Your task to perform on an android device: open wifi settings Image 0: 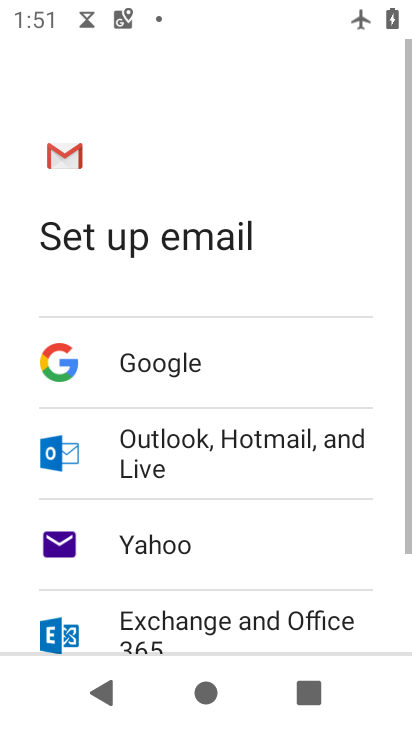
Step 0: press home button
Your task to perform on an android device: open wifi settings Image 1: 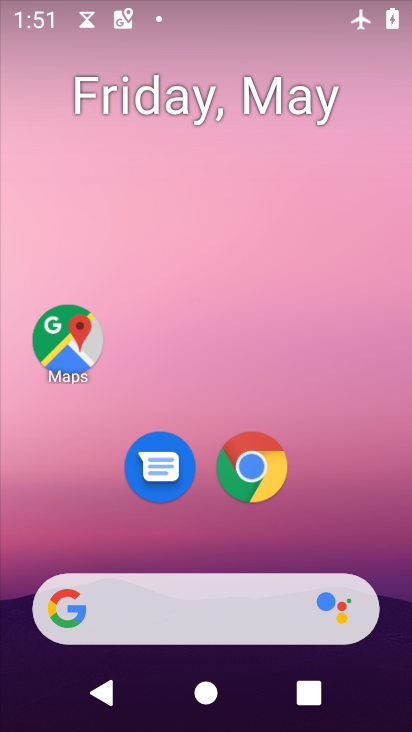
Step 1: drag from (321, 536) to (299, 101)
Your task to perform on an android device: open wifi settings Image 2: 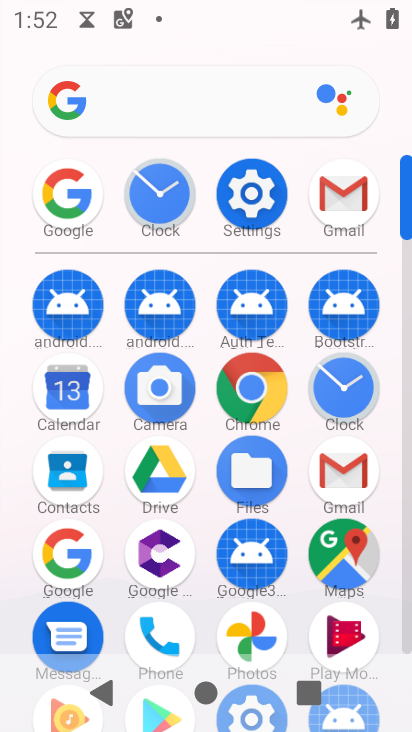
Step 2: click (248, 188)
Your task to perform on an android device: open wifi settings Image 3: 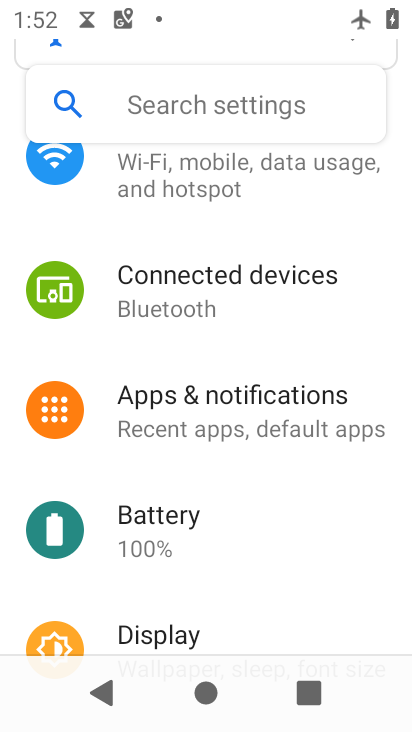
Step 3: drag from (234, 254) to (219, 505)
Your task to perform on an android device: open wifi settings Image 4: 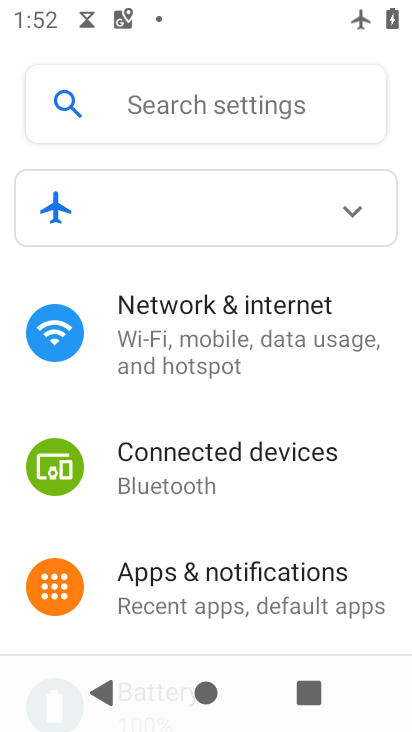
Step 4: click (213, 305)
Your task to perform on an android device: open wifi settings Image 5: 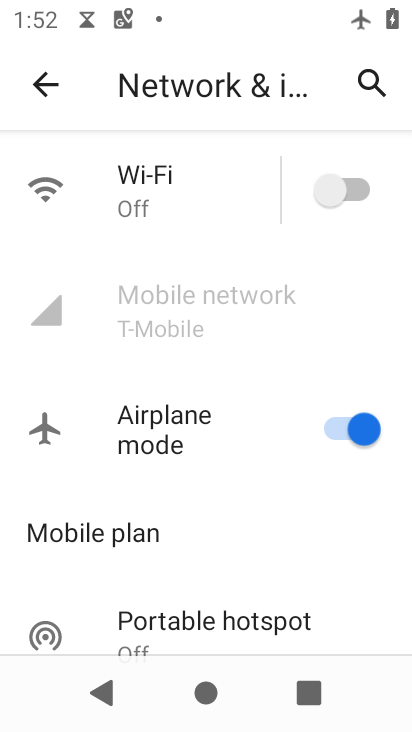
Step 5: click (172, 164)
Your task to perform on an android device: open wifi settings Image 6: 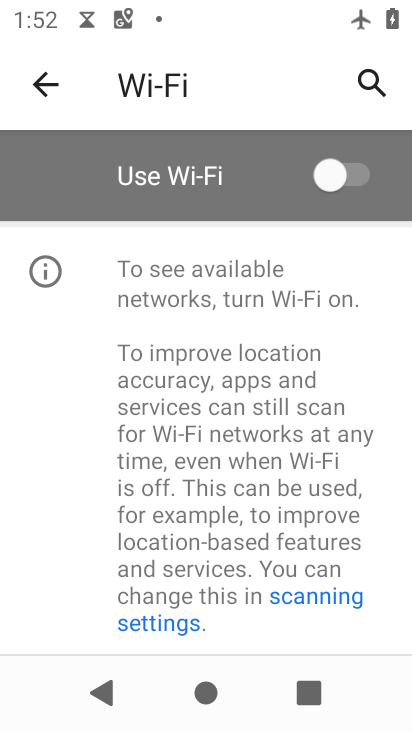
Step 6: task complete